Your task to perform on an android device: Go to settings Image 0: 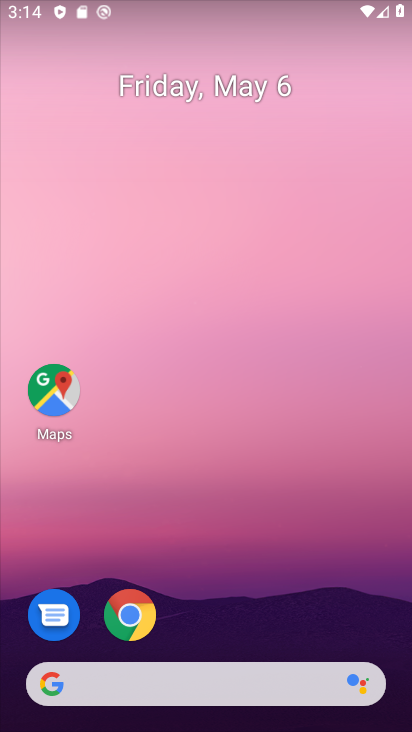
Step 0: drag from (249, 615) to (300, 127)
Your task to perform on an android device: Go to settings Image 1: 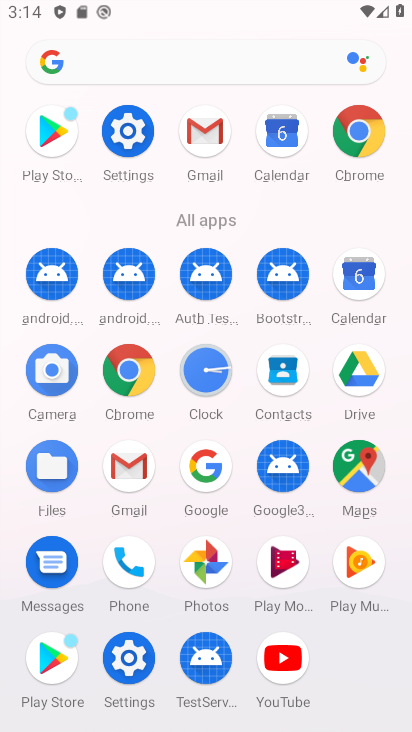
Step 1: click (131, 132)
Your task to perform on an android device: Go to settings Image 2: 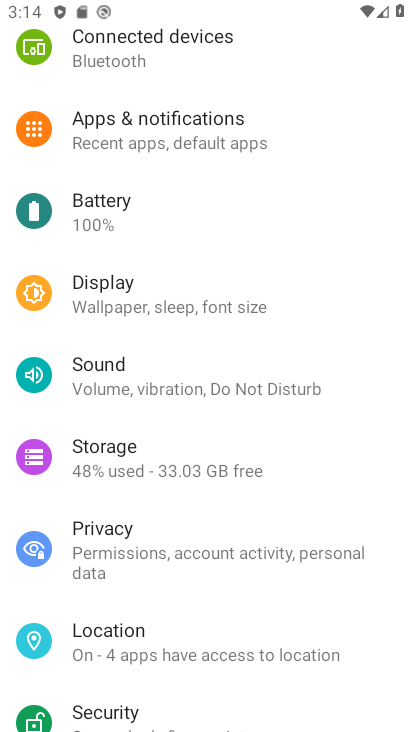
Step 2: click (254, 537)
Your task to perform on an android device: Go to settings Image 3: 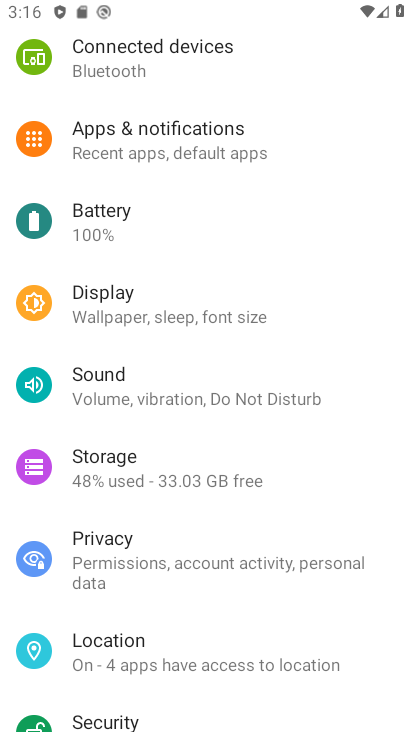
Step 3: task complete